Your task to perform on an android device: Search for seafood restaurants on Google Maps Image 0: 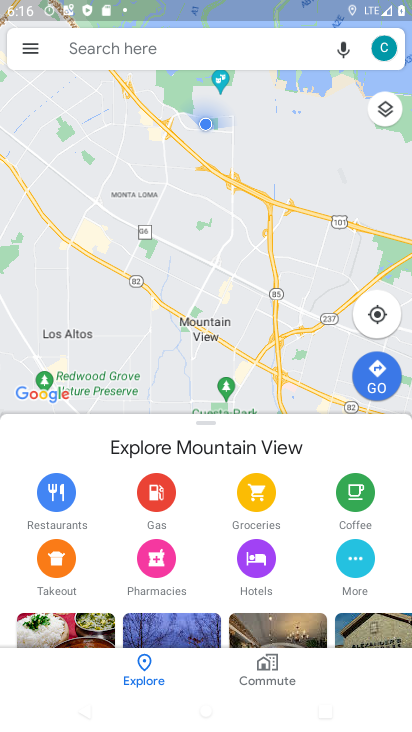
Step 0: press home button
Your task to perform on an android device: Search for seafood restaurants on Google Maps Image 1: 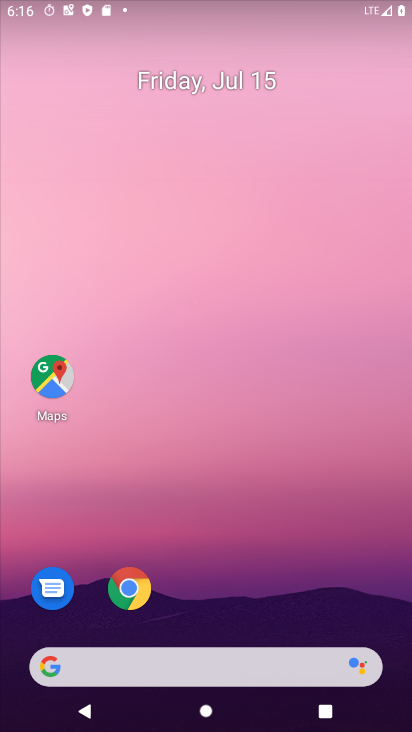
Step 1: drag from (293, 584) to (333, 77)
Your task to perform on an android device: Search for seafood restaurants on Google Maps Image 2: 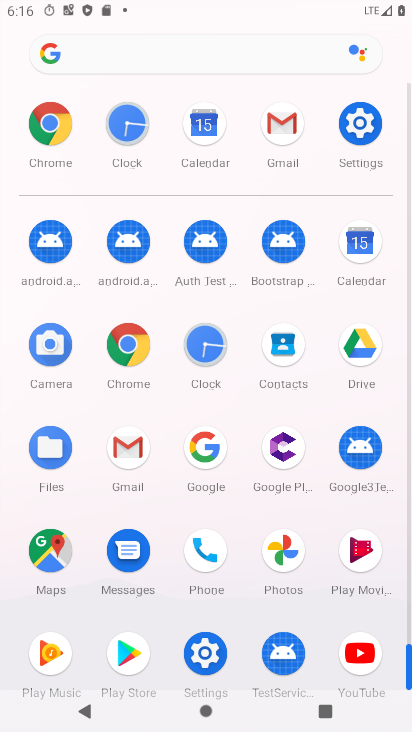
Step 2: click (29, 543)
Your task to perform on an android device: Search for seafood restaurants on Google Maps Image 3: 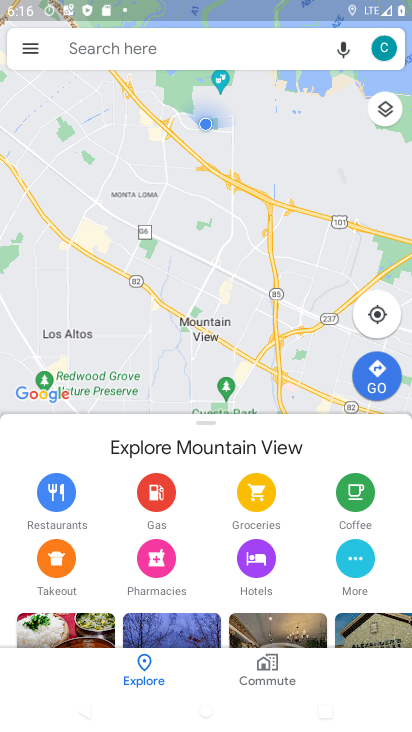
Step 3: click (188, 52)
Your task to perform on an android device: Search for seafood restaurants on Google Maps Image 4: 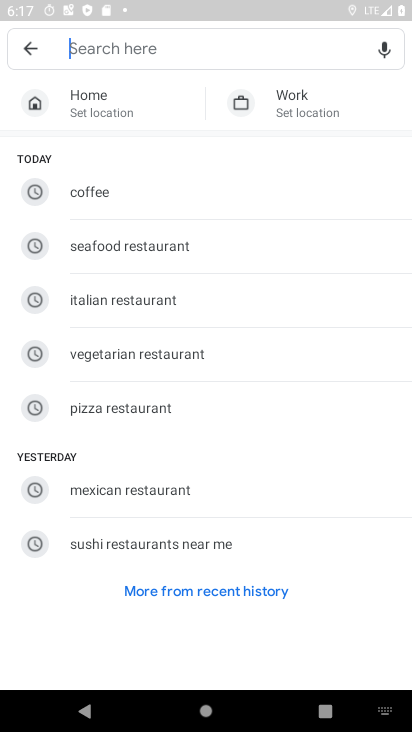
Step 4: type "seafood restaurant"
Your task to perform on an android device: Search for seafood restaurants on Google Maps Image 5: 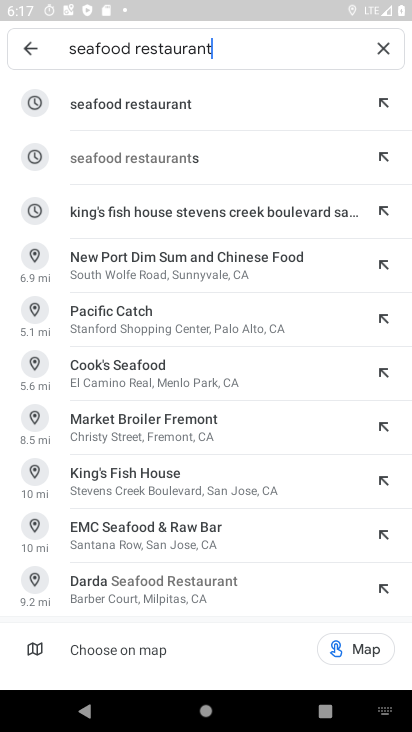
Step 5: click (114, 123)
Your task to perform on an android device: Search for seafood restaurants on Google Maps Image 6: 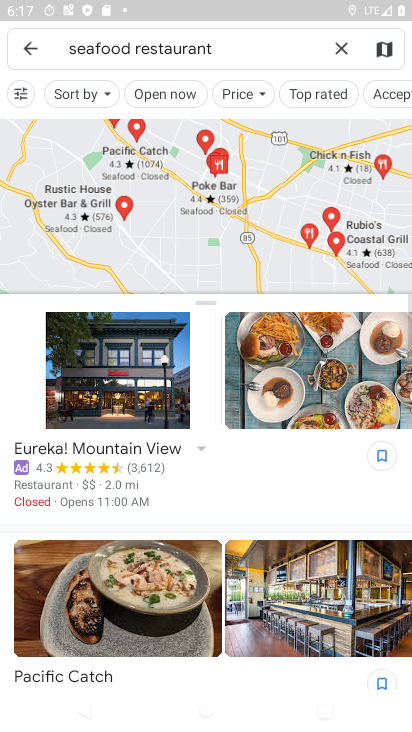
Step 6: task complete